Your task to perform on an android device: open chrome privacy settings Image 0: 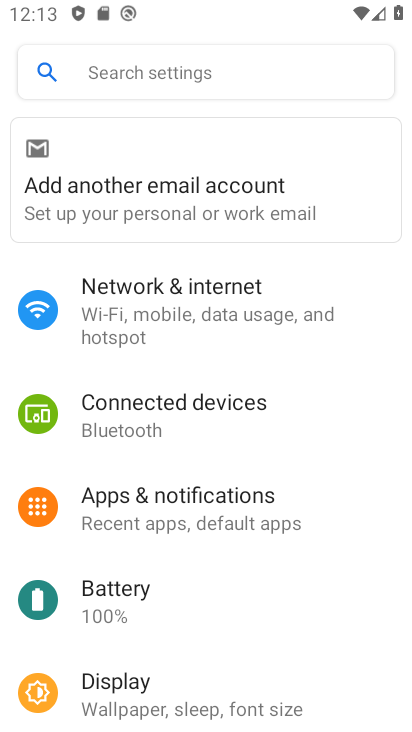
Step 0: press home button
Your task to perform on an android device: open chrome privacy settings Image 1: 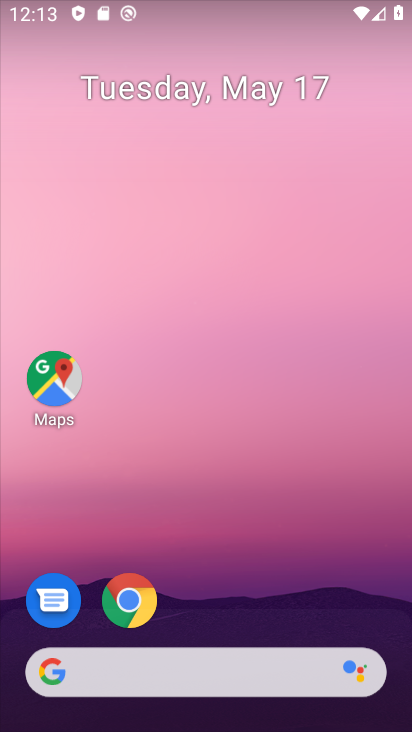
Step 1: click (128, 604)
Your task to perform on an android device: open chrome privacy settings Image 2: 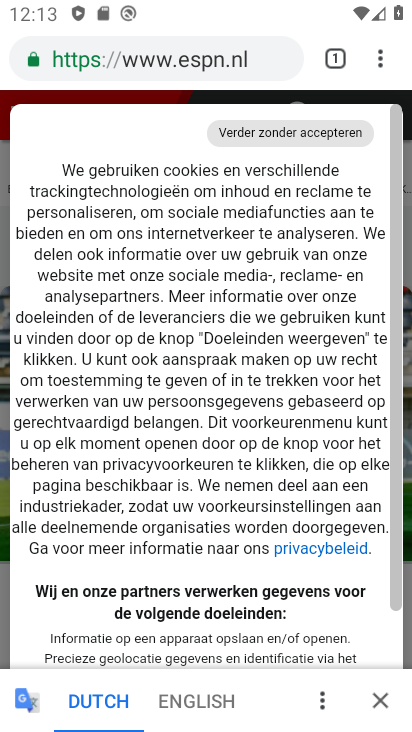
Step 2: click (381, 55)
Your task to perform on an android device: open chrome privacy settings Image 3: 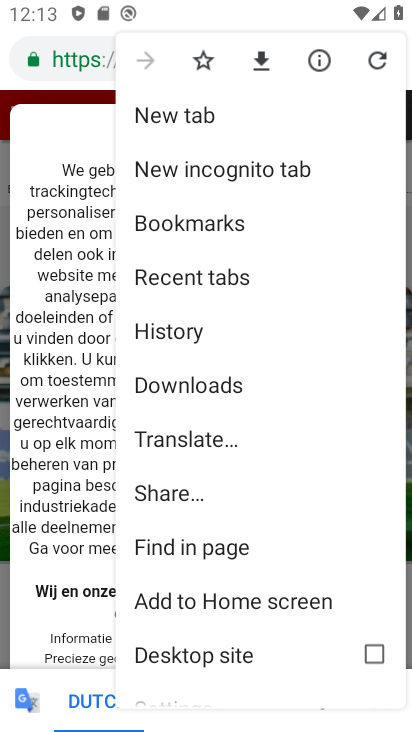
Step 3: drag from (197, 600) to (262, 246)
Your task to perform on an android device: open chrome privacy settings Image 4: 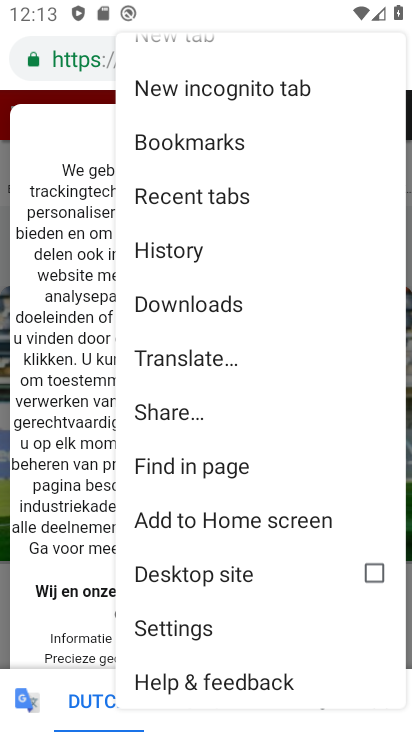
Step 4: click (194, 634)
Your task to perform on an android device: open chrome privacy settings Image 5: 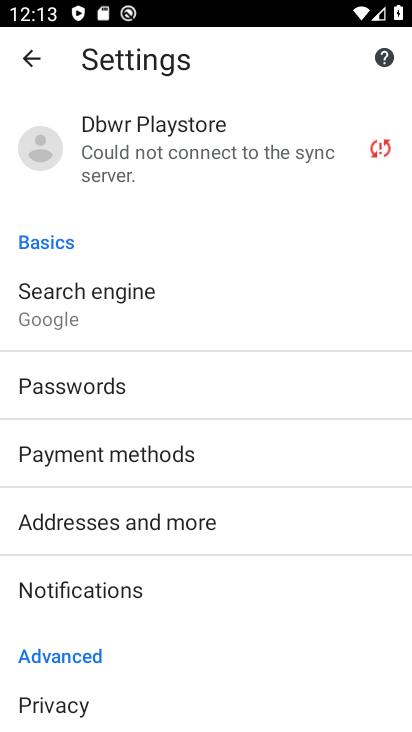
Step 5: click (70, 704)
Your task to perform on an android device: open chrome privacy settings Image 6: 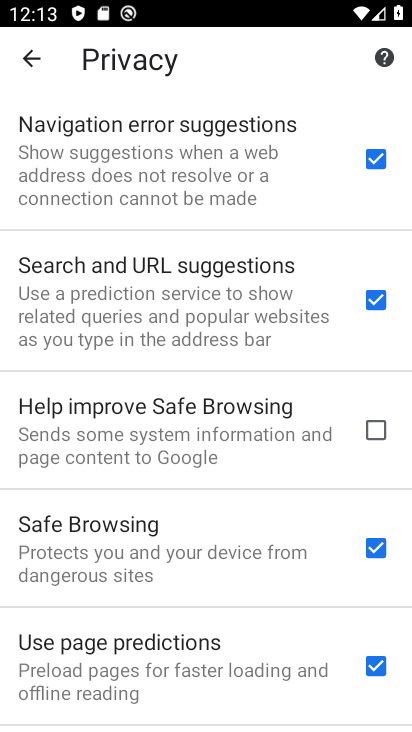
Step 6: task complete